Your task to perform on an android device: Check the news Image 0: 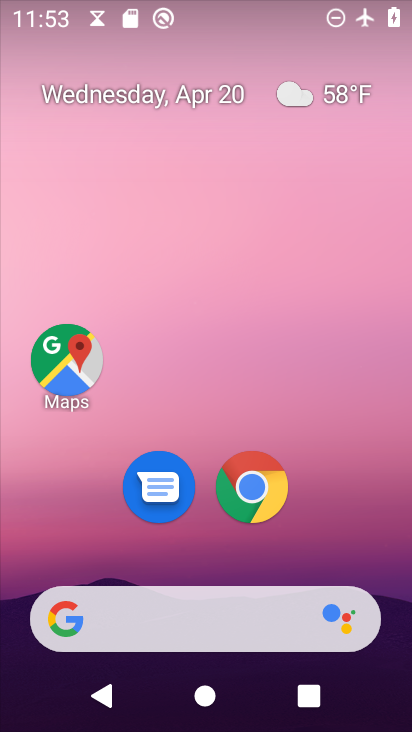
Step 0: drag from (323, 504) to (213, 55)
Your task to perform on an android device: Check the news Image 1: 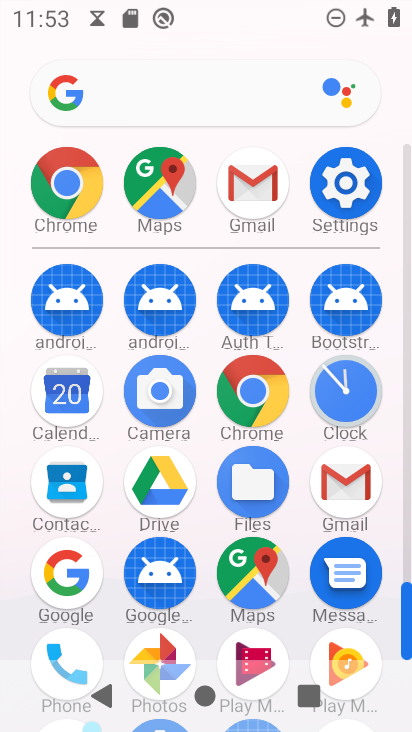
Step 1: drag from (19, 426) to (23, 189)
Your task to perform on an android device: Check the news Image 2: 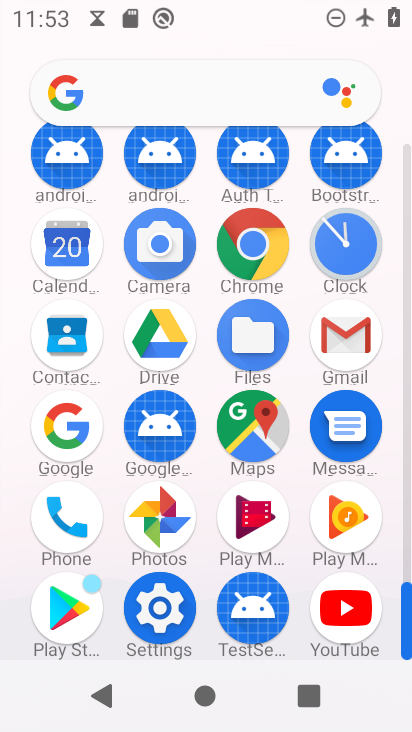
Step 2: click (170, 87)
Your task to perform on an android device: Check the news Image 3: 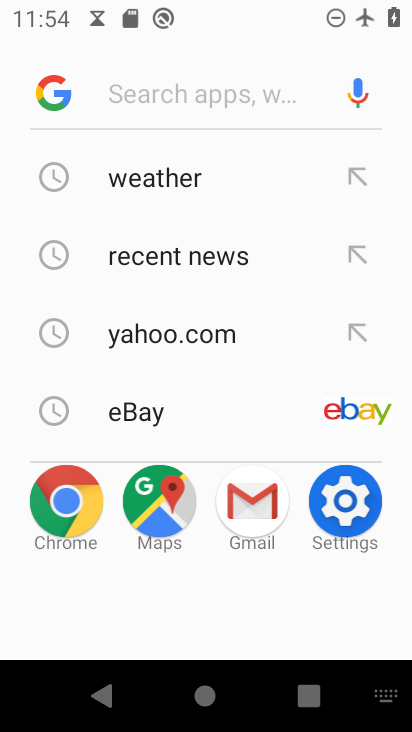
Step 3: click (172, 254)
Your task to perform on an android device: Check the news Image 4: 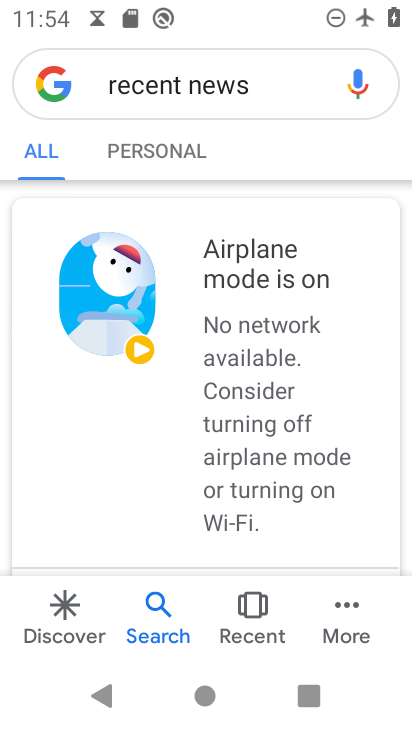
Step 4: task complete